Your task to perform on an android device: turn on sleep mode Image 0: 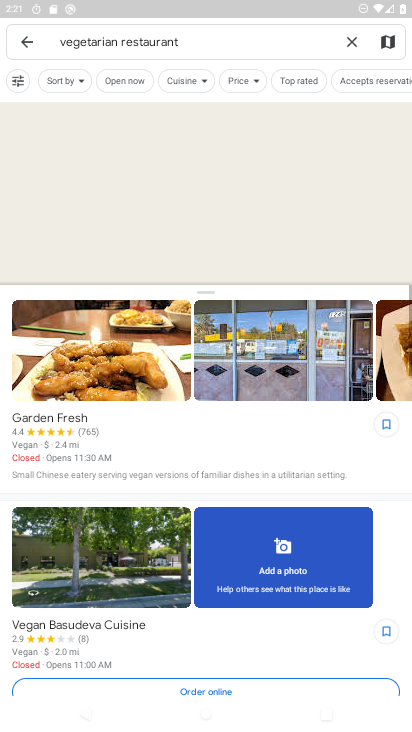
Step 0: press home button
Your task to perform on an android device: turn on sleep mode Image 1: 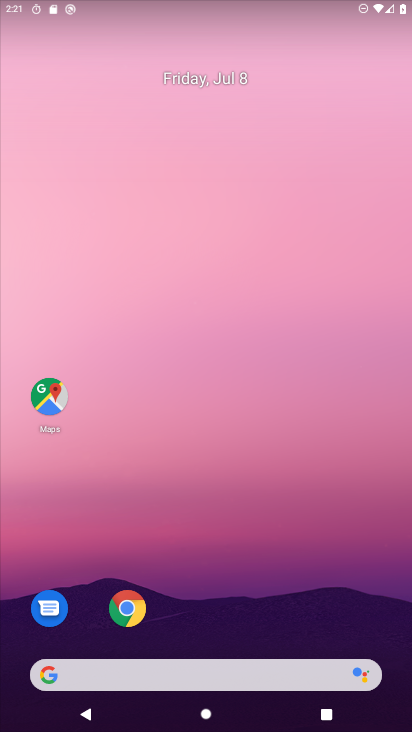
Step 1: drag from (245, 664) to (234, 54)
Your task to perform on an android device: turn on sleep mode Image 2: 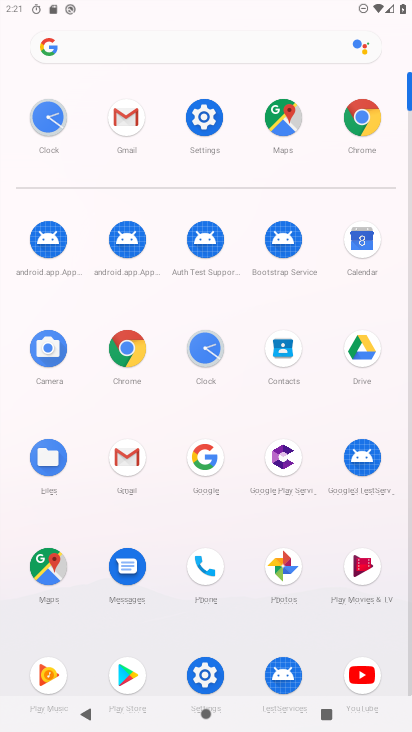
Step 2: click (202, 127)
Your task to perform on an android device: turn on sleep mode Image 3: 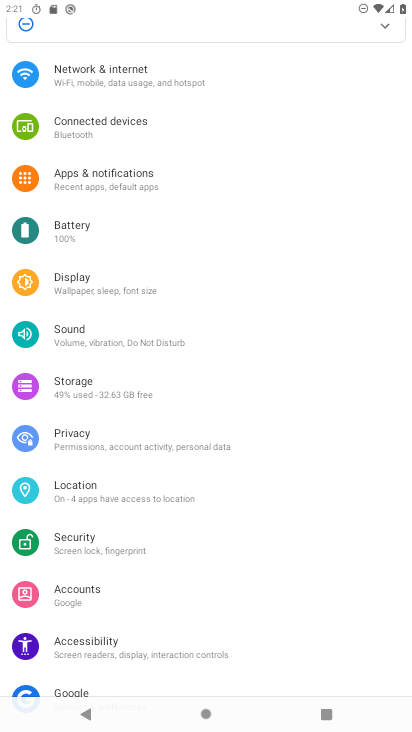
Step 3: click (76, 289)
Your task to perform on an android device: turn on sleep mode Image 4: 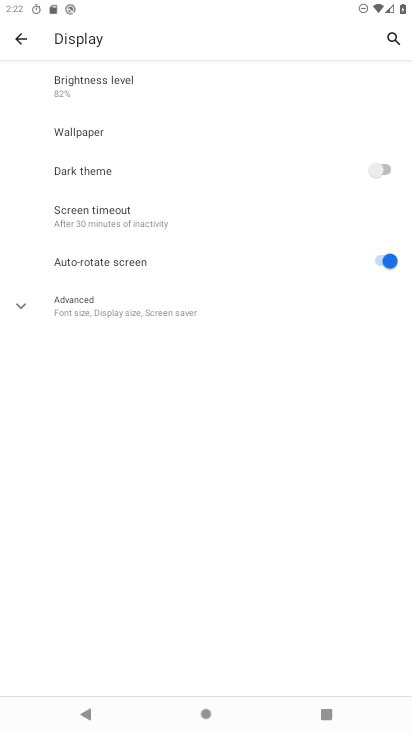
Step 4: task complete